Your task to perform on an android device: Open Youtube and go to the subscriptions tab Image 0: 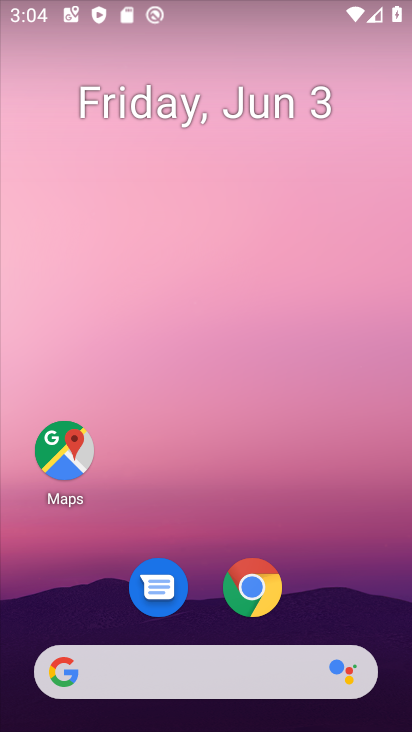
Step 0: drag from (220, 697) to (198, 209)
Your task to perform on an android device: Open Youtube and go to the subscriptions tab Image 1: 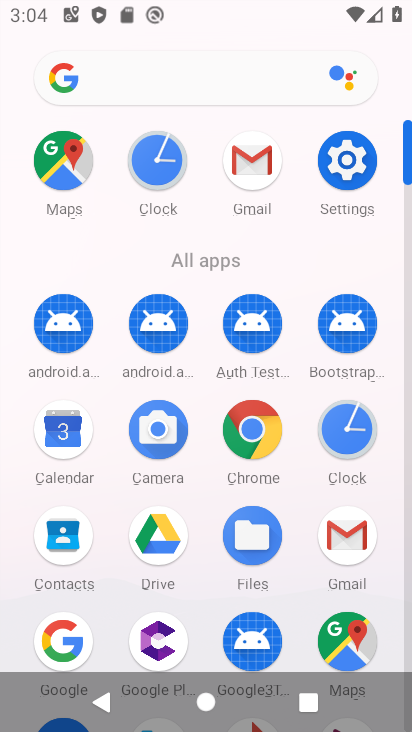
Step 1: drag from (305, 561) to (264, 210)
Your task to perform on an android device: Open Youtube and go to the subscriptions tab Image 2: 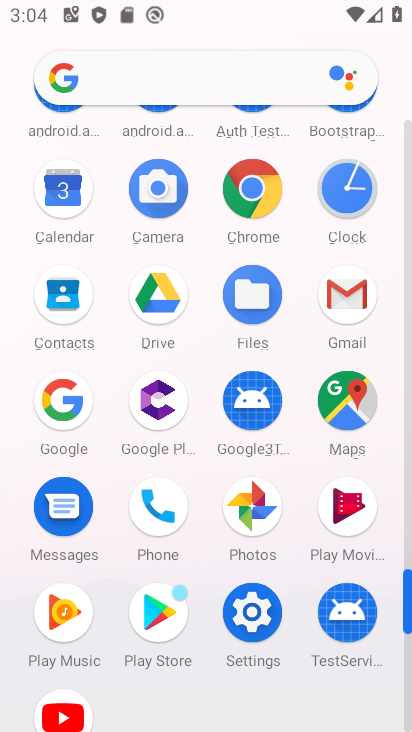
Step 2: click (49, 703)
Your task to perform on an android device: Open Youtube and go to the subscriptions tab Image 3: 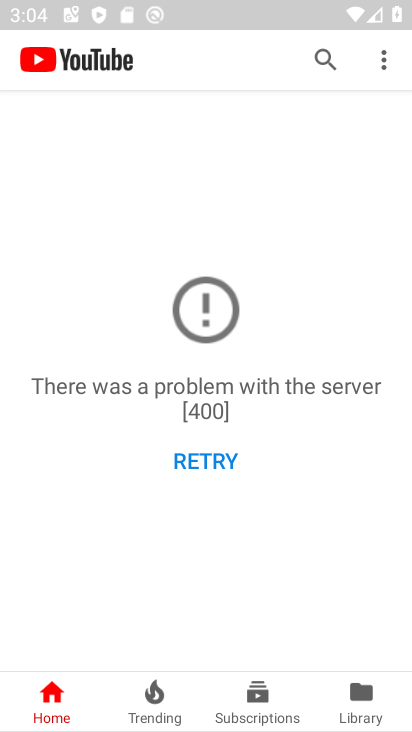
Step 3: click (258, 697)
Your task to perform on an android device: Open Youtube and go to the subscriptions tab Image 4: 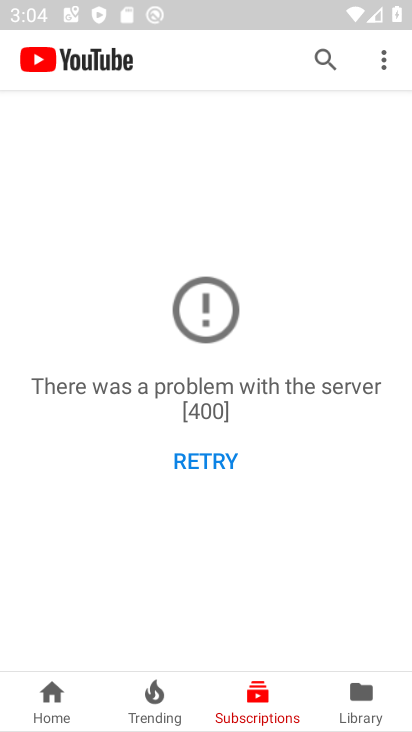
Step 4: click (255, 700)
Your task to perform on an android device: Open Youtube and go to the subscriptions tab Image 5: 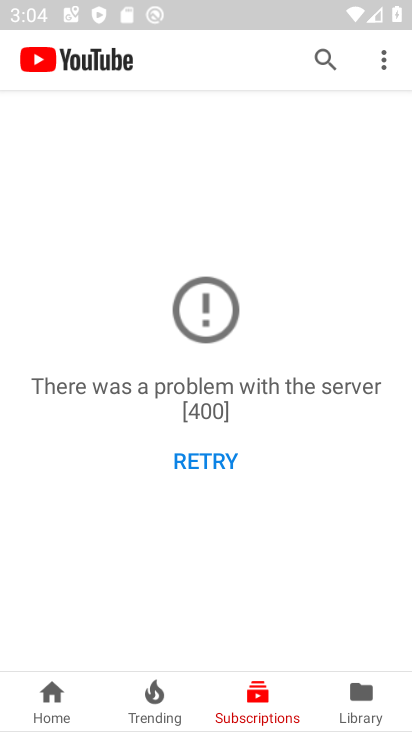
Step 5: task complete